Your task to perform on an android device: open app "Skype" (install if not already installed) and enter user name: "rumor@gmail.com" and password: "kinsman" Image 0: 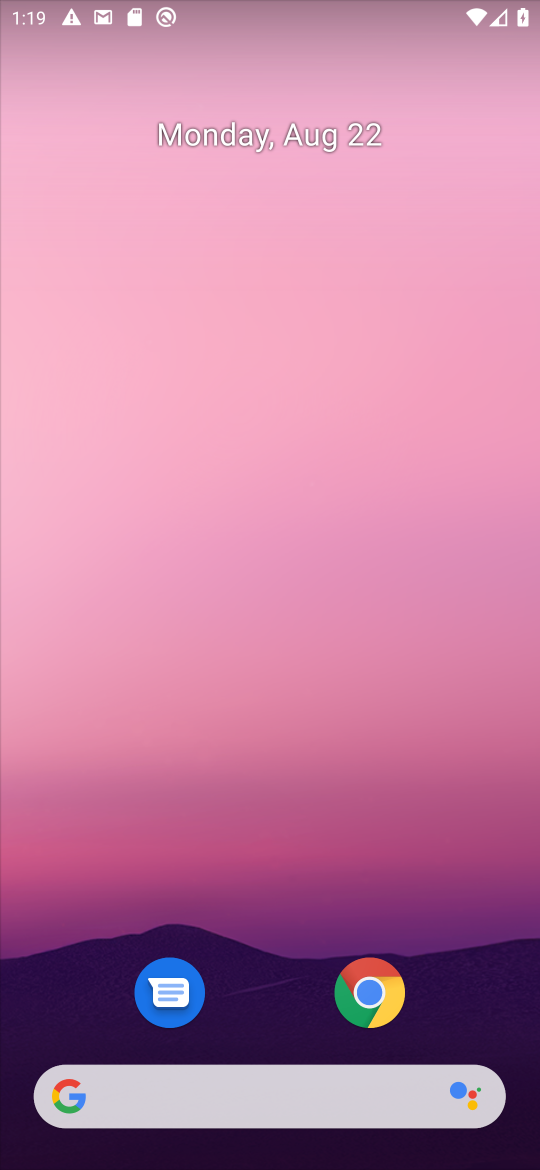
Step 0: drag from (282, 821) to (301, 358)
Your task to perform on an android device: open app "Skype" (install if not already installed) and enter user name: "rumor@gmail.com" and password: "kinsman" Image 1: 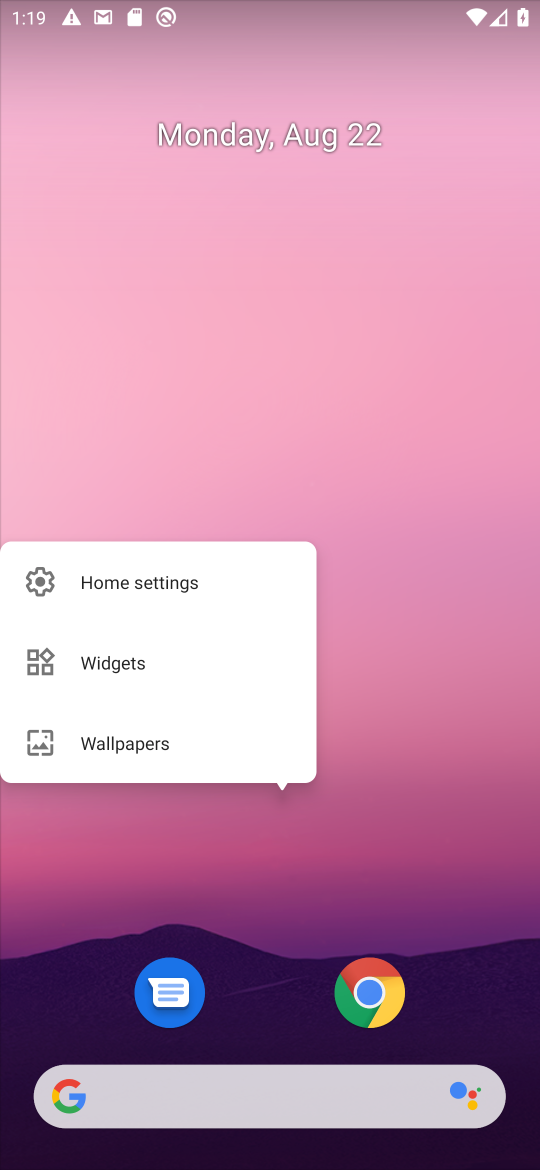
Step 1: drag from (223, 855) to (217, 371)
Your task to perform on an android device: open app "Skype" (install if not already installed) and enter user name: "rumor@gmail.com" and password: "kinsman" Image 2: 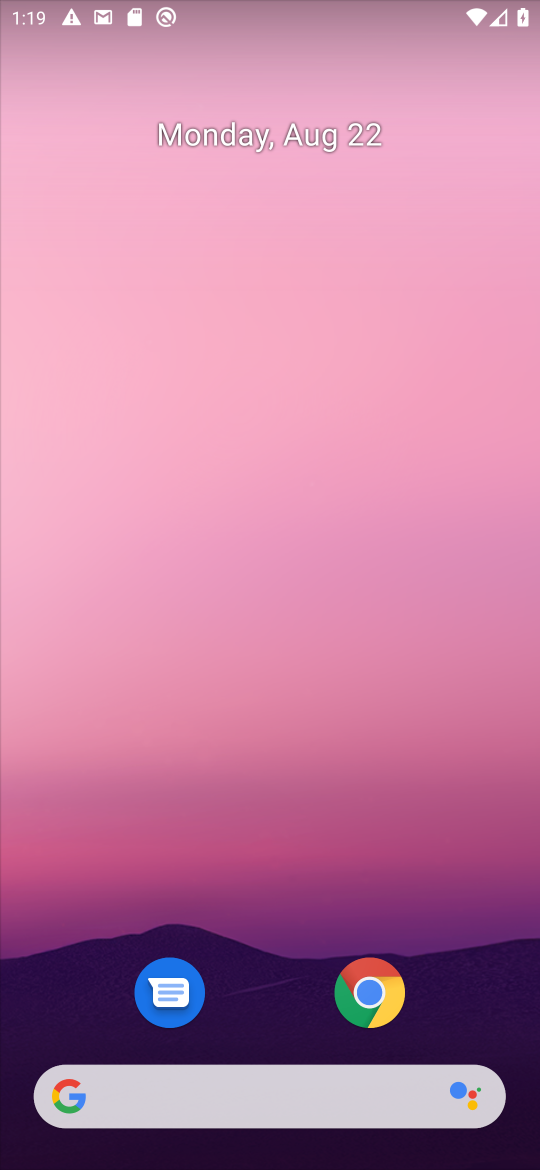
Step 2: drag from (287, 1050) to (269, 293)
Your task to perform on an android device: open app "Skype" (install if not already installed) and enter user name: "rumor@gmail.com" and password: "kinsman" Image 3: 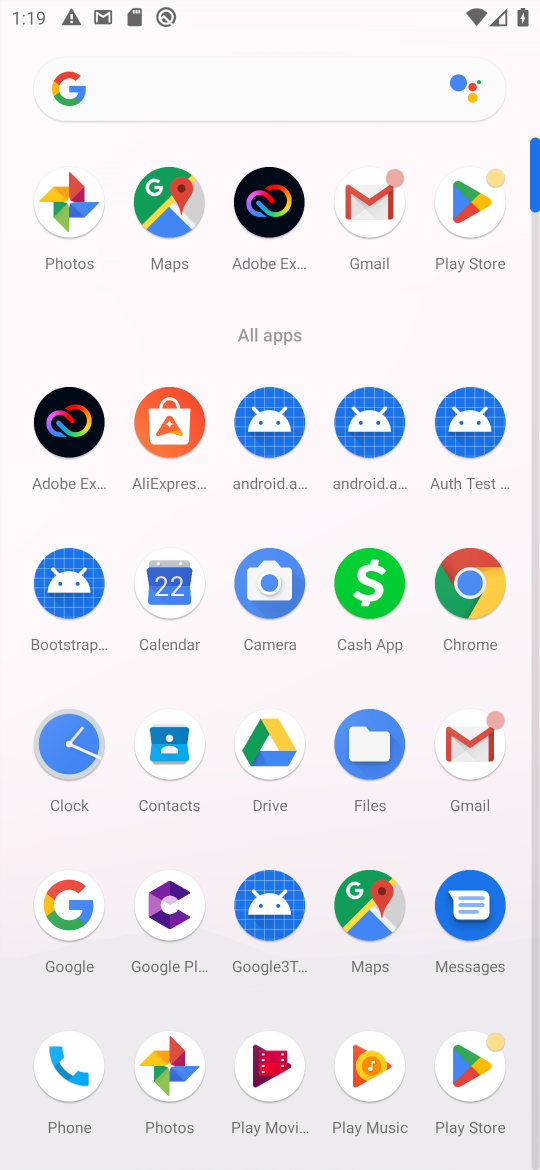
Step 3: click (467, 202)
Your task to perform on an android device: open app "Skype" (install if not already installed) and enter user name: "rumor@gmail.com" and password: "kinsman" Image 4: 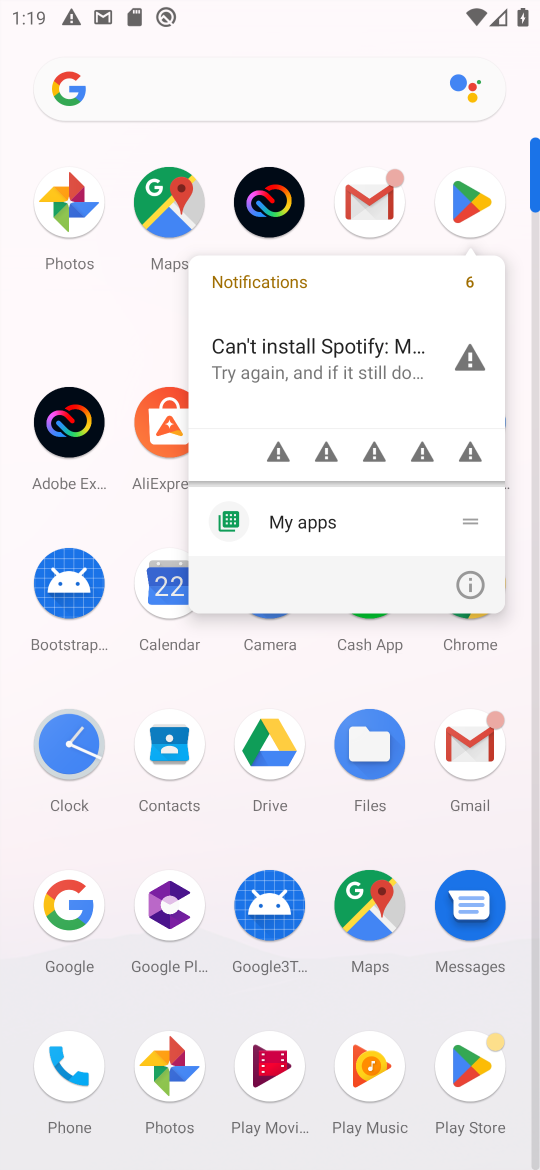
Step 4: click (474, 215)
Your task to perform on an android device: open app "Skype" (install if not already installed) and enter user name: "rumor@gmail.com" and password: "kinsman" Image 5: 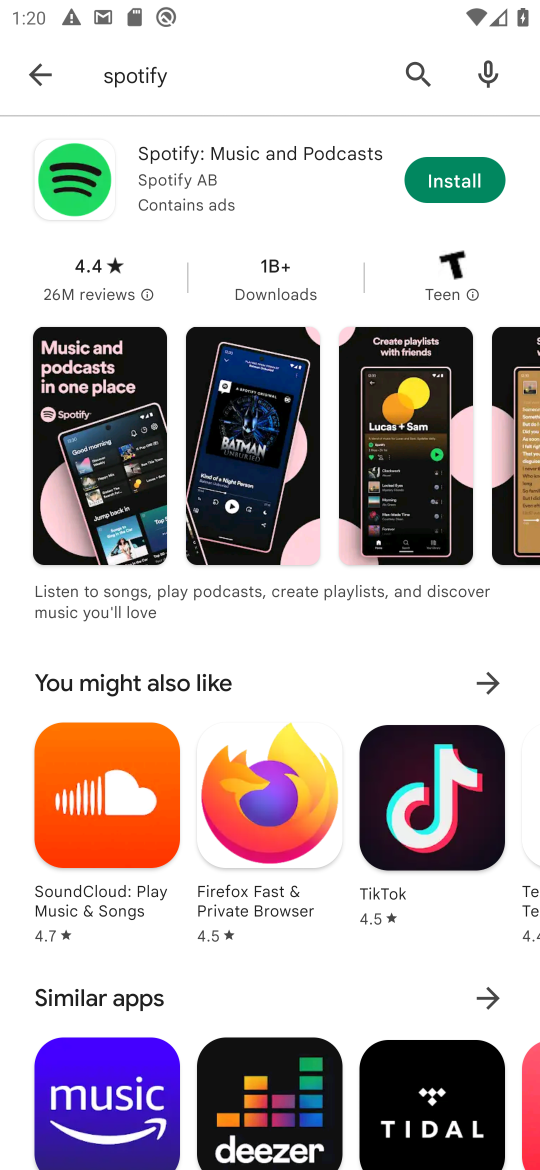
Step 5: click (414, 76)
Your task to perform on an android device: open app "Skype" (install if not already installed) and enter user name: "rumor@gmail.com" and password: "kinsman" Image 6: 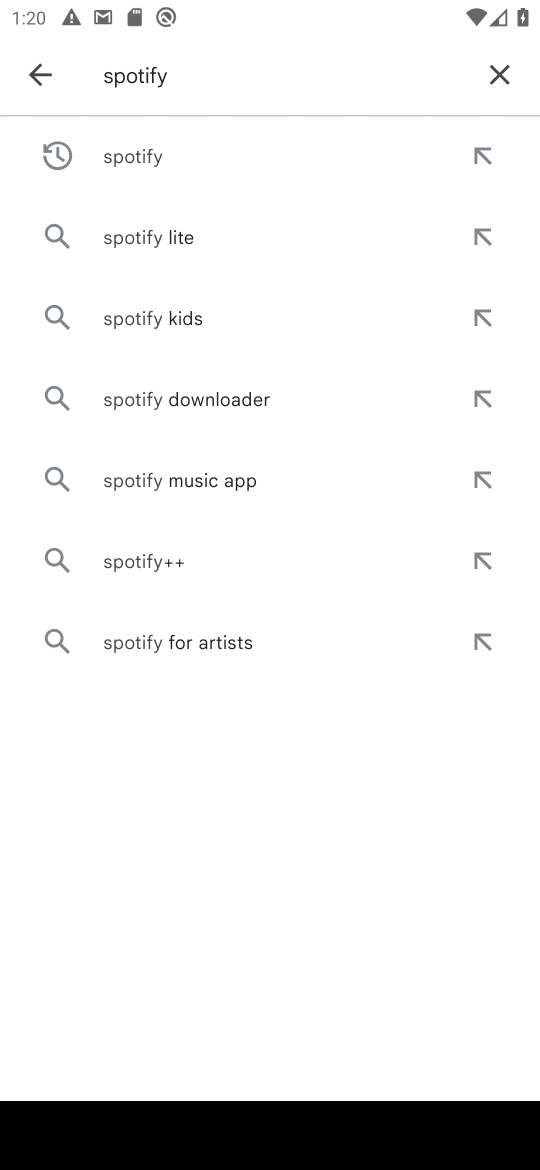
Step 6: click (502, 69)
Your task to perform on an android device: open app "Skype" (install if not already installed) and enter user name: "rumor@gmail.com" and password: "kinsman" Image 7: 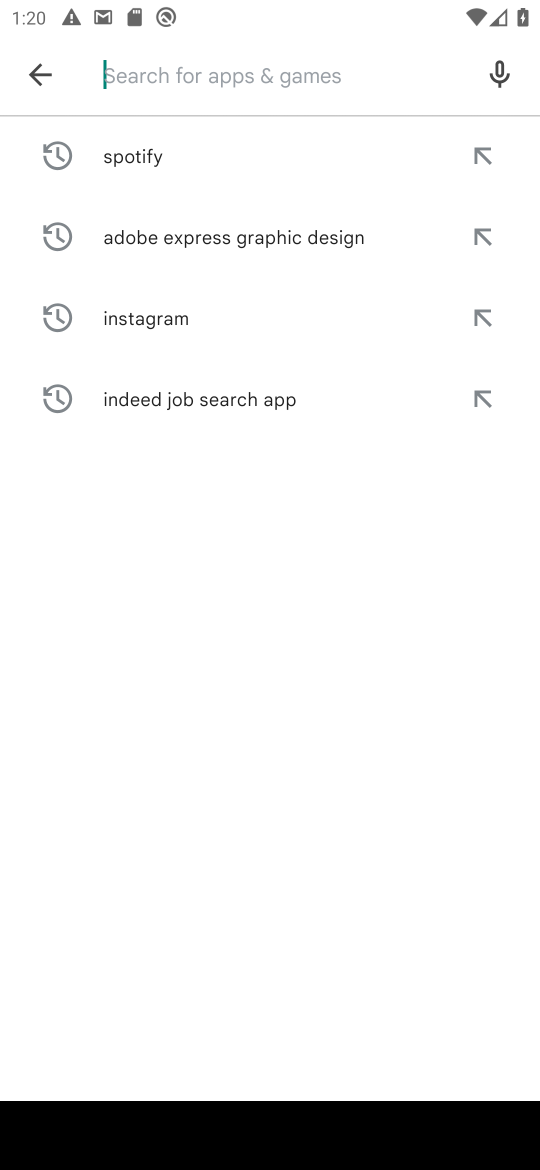
Step 7: type "Skype"
Your task to perform on an android device: open app "Skype" (install if not already installed) and enter user name: "rumor@gmail.com" and password: "kinsman" Image 8: 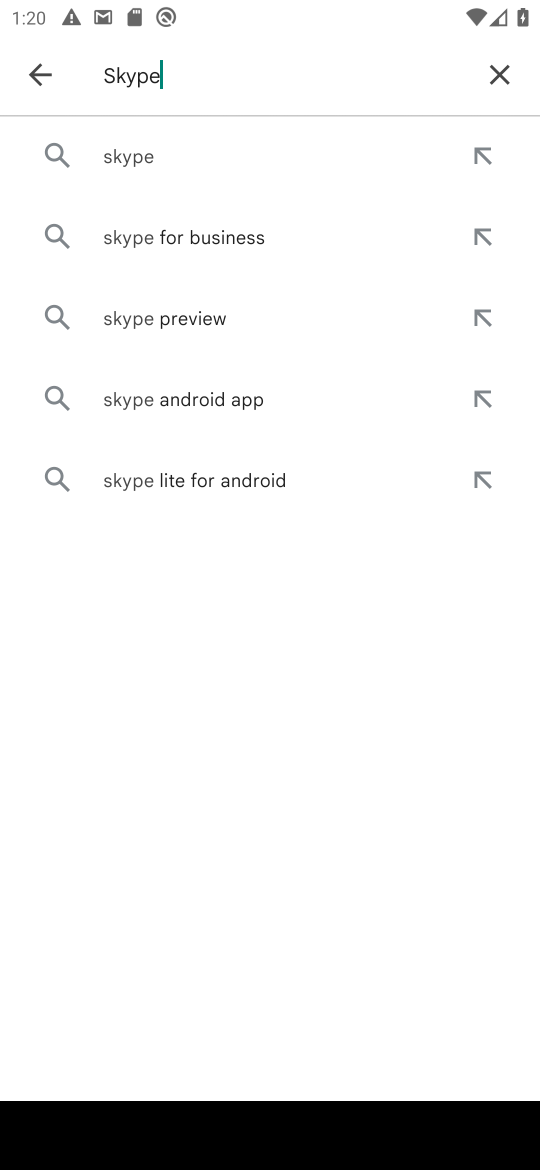
Step 8: click (114, 144)
Your task to perform on an android device: open app "Skype" (install if not already installed) and enter user name: "rumor@gmail.com" and password: "kinsman" Image 9: 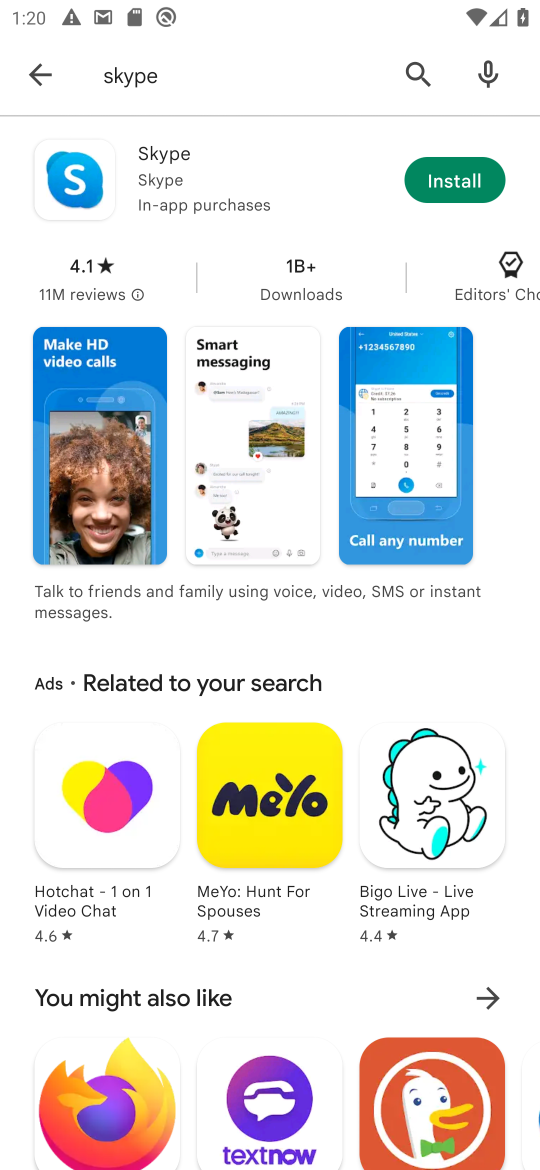
Step 9: click (438, 177)
Your task to perform on an android device: open app "Skype" (install if not already installed) and enter user name: "rumor@gmail.com" and password: "kinsman" Image 10: 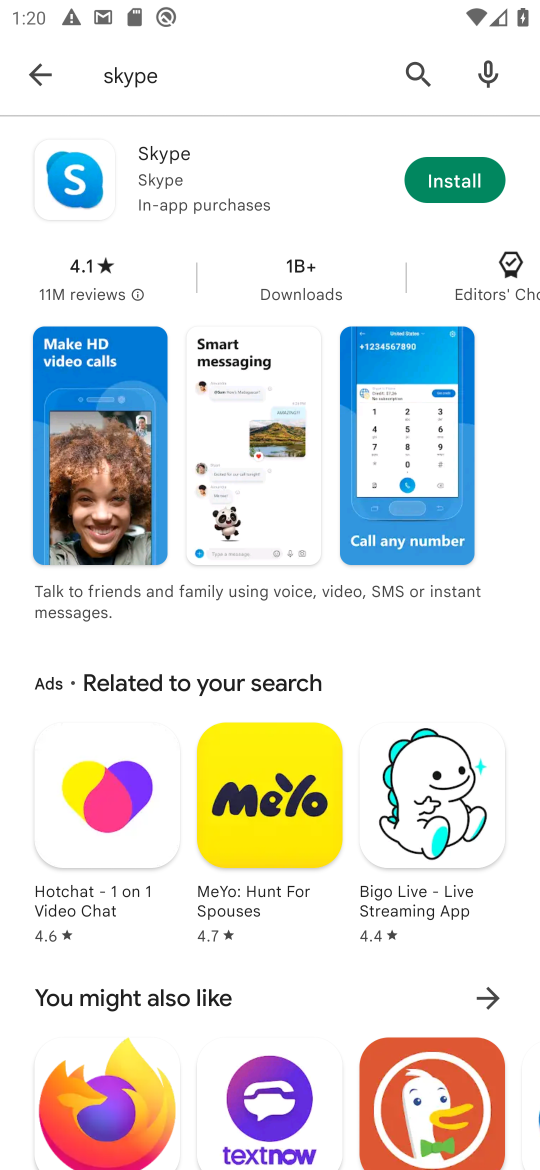
Step 10: task complete